Your task to perform on an android device: Open the stopwatch Image 0: 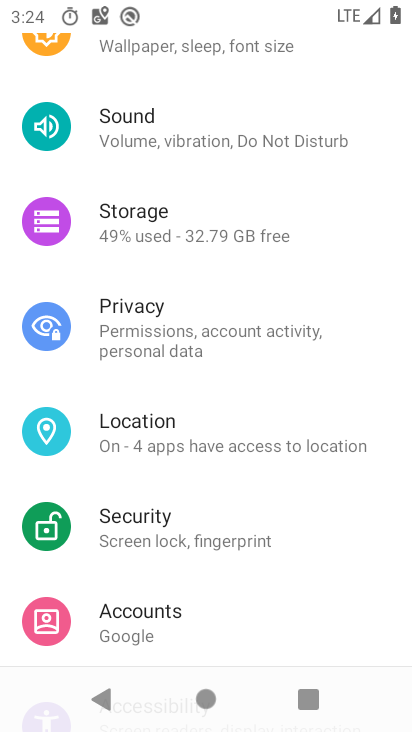
Step 0: drag from (220, 628) to (237, 336)
Your task to perform on an android device: Open the stopwatch Image 1: 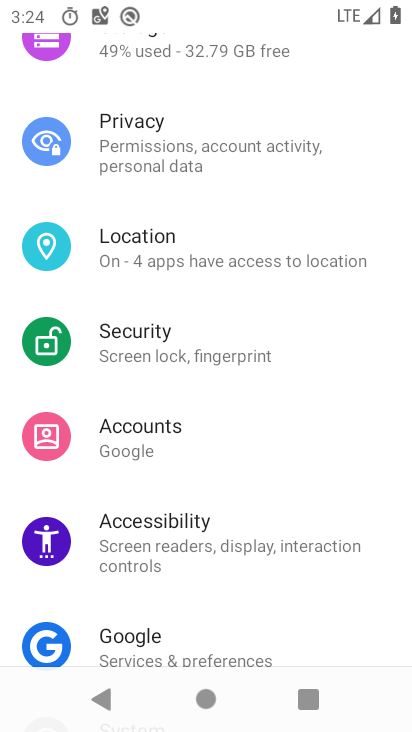
Step 1: press home button
Your task to perform on an android device: Open the stopwatch Image 2: 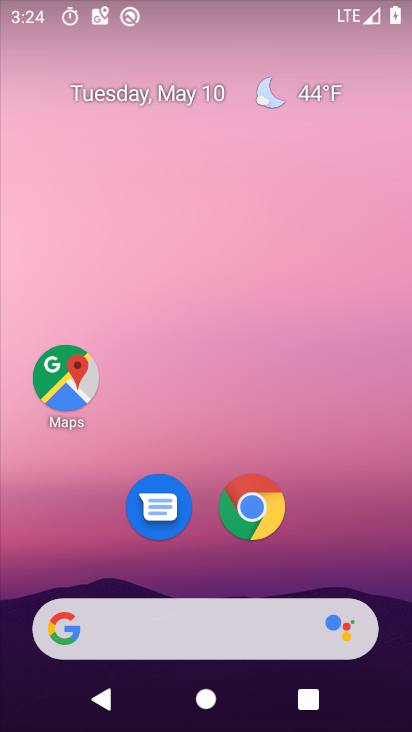
Step 2: drag from (223, 598) to (268, 174)
Your task to perform on an android device: Open the stopwatch Image 3: 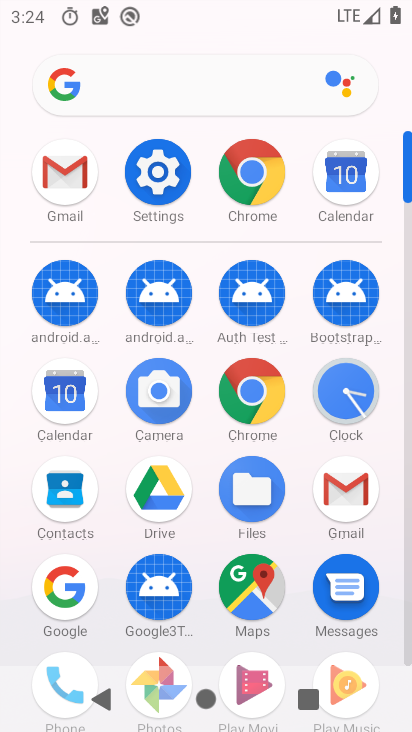
Step 3: click (333, 408)
Your task to perform on an android device: Open the stopwatch Image 4: 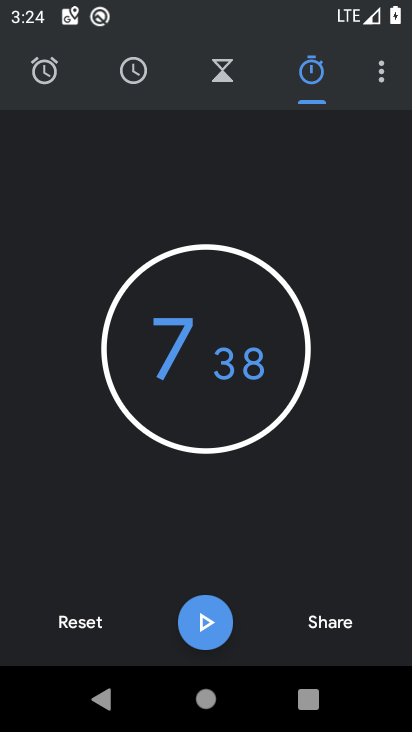
Step 4: task complete